Your task to perform on an android device: Show me popular games on the Play Store Image 0: 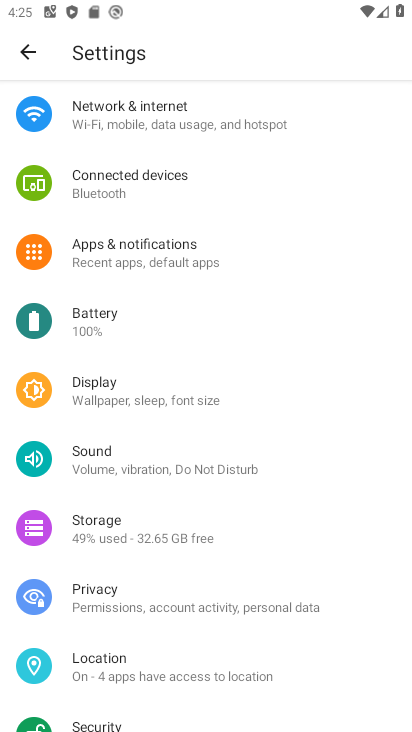
Step 0: press home button
Your task to perform on an android device: Show me popular games on the Play Store Image 1: 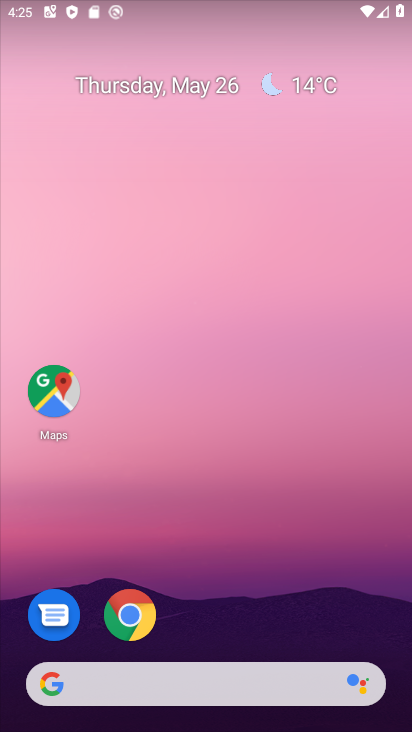
Step 1: drag from (265, 603) to (233, 152)
Your task to perform on an android device: Show me popular games on the Play Store Image 2: 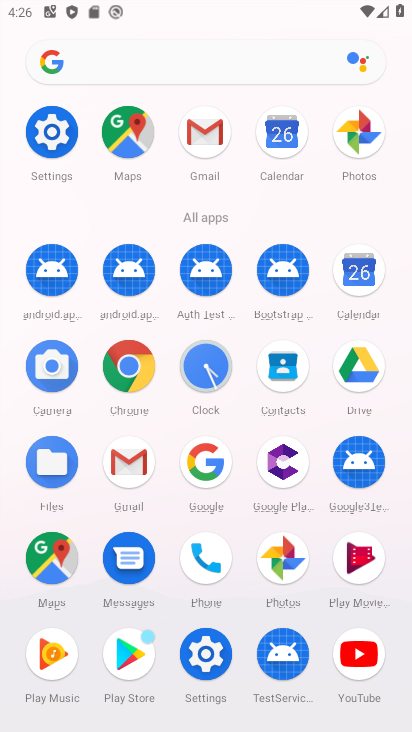
Step 2: click (133, 652)
Your task to perform on an android device: Show me popular games on the Play Store Image 3: 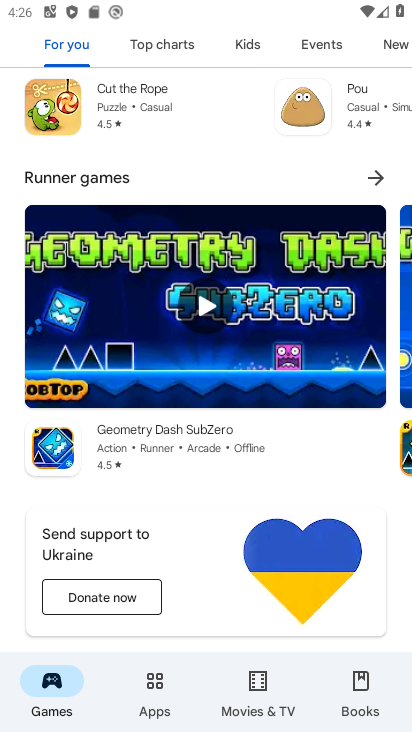
Step 3: task complete